Your task to perform on an android device: Open my contact list Image 0: 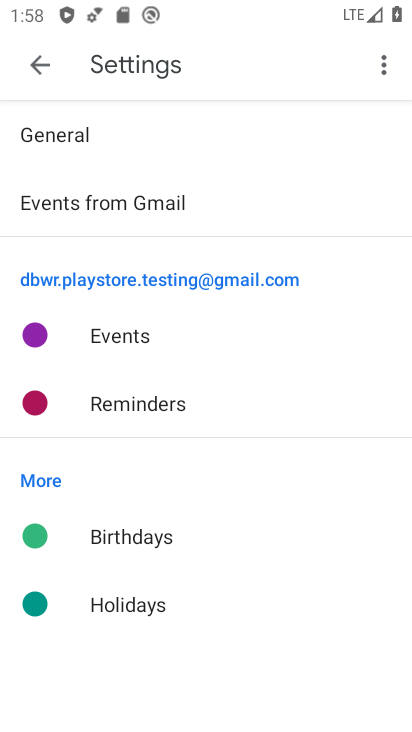
Step 0: press home button
Your task to perform on an android device: Open my contact list Image 1: 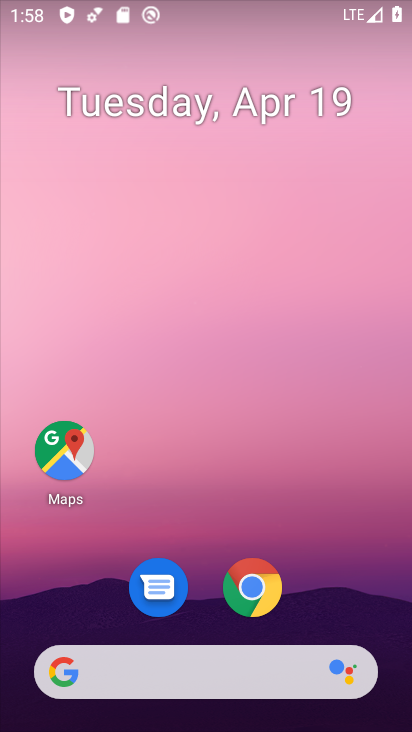
Step 1: drag from (296, 559) to (114, 113)
Your task to perform on an android device: Open my contact list Image 2: 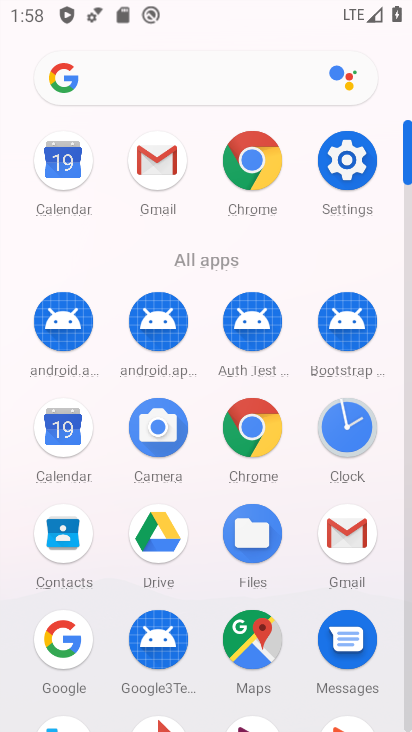
Step 2: click (54, 540)
Your task to perform on an android device: Open my contact list Image 3: 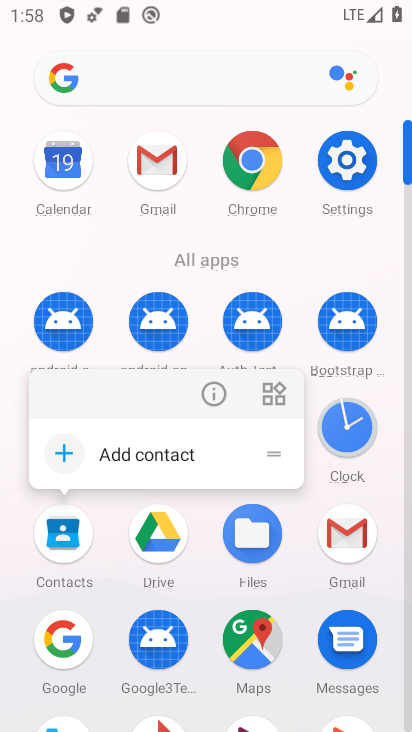
Step 3: click (63, 533)
Your task to perform on an android device: Open my contact list Image 4: 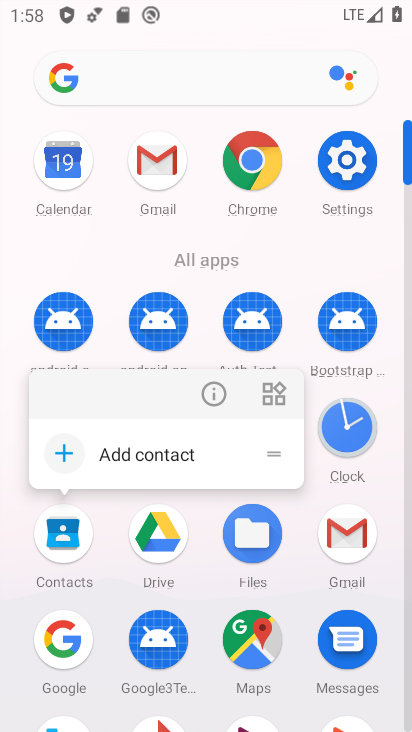
Step 4: click (55, 538)
Your task to perform on an android device: Open my contact list Image 5: 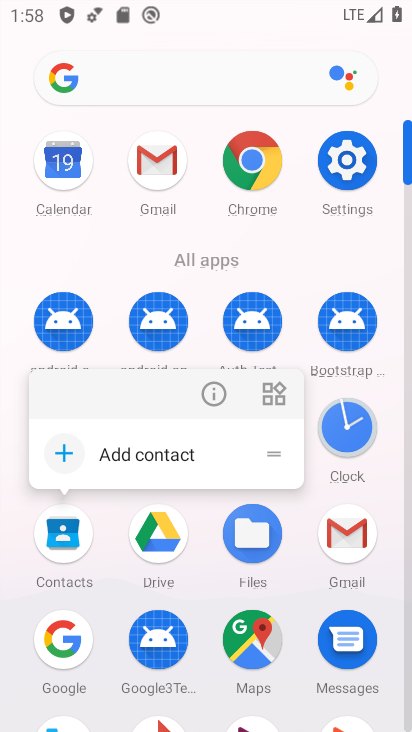
Step 5: click (65, 527)
Your task to perform on an android device: Open my contact list Image 6: 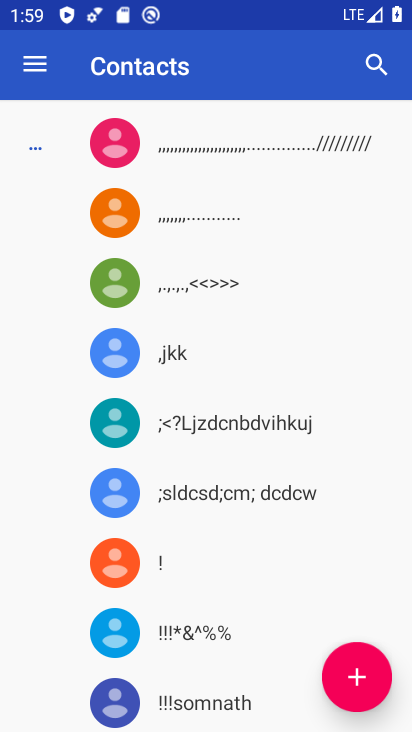
Step 6: drag from (259, 559) to (260, 383)
Your task to perform on an android device: Open my contact list Image 7: 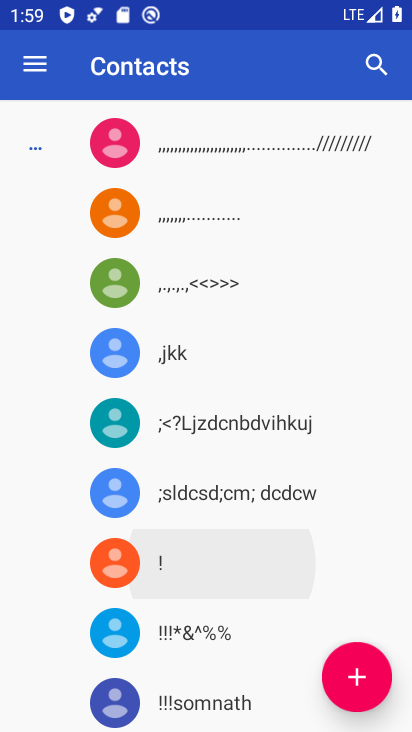
Step 7: drag from (255, 535) to (184, 201)
Your task to perform on an android device: Open my contact list Image 8: 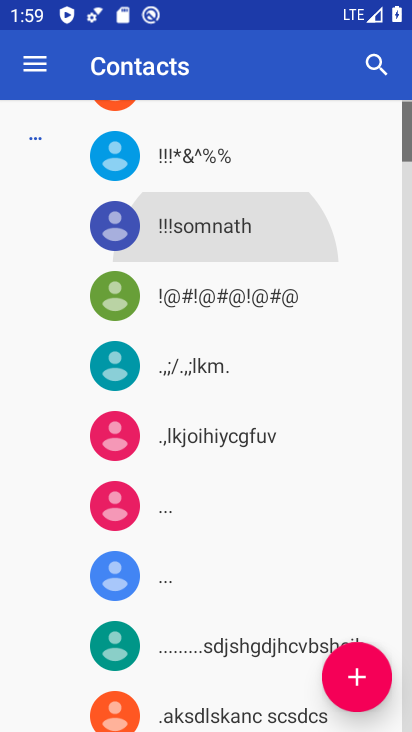
Step 8: drag from (187, 539) to (204, 267)
Your task to perform on an android device: Open my contact list Image 9: 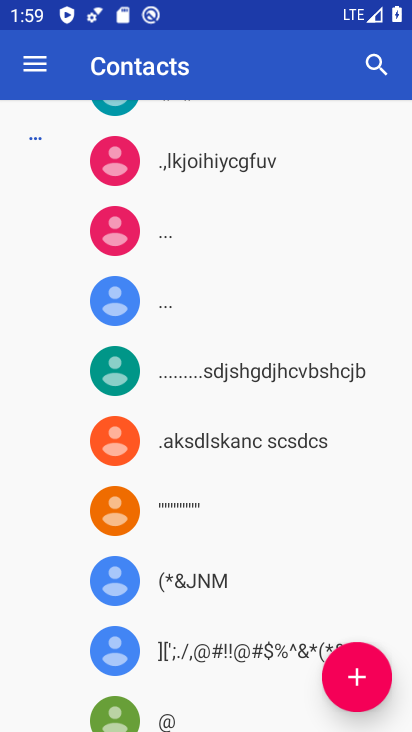
Step 9: click (181, 141)
Your task to perform on an android device: Open my contact list Image 10: 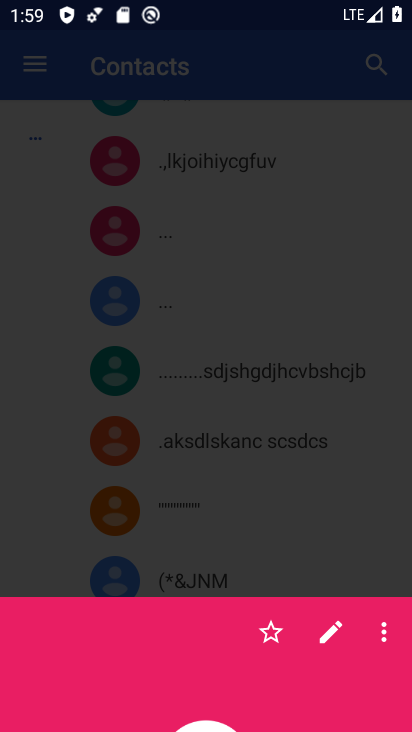
Step 10: drag from (216, 437) to (216, 261)
Your task to perform on an android device: Open my contact list Image 11: 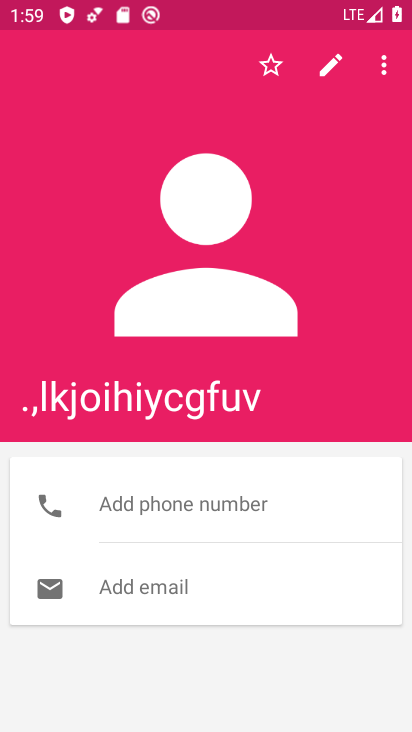
Step 11: drag from (250, 404) to (194, 85)
Your task to perform on an android device: Open my contact list Image 12: 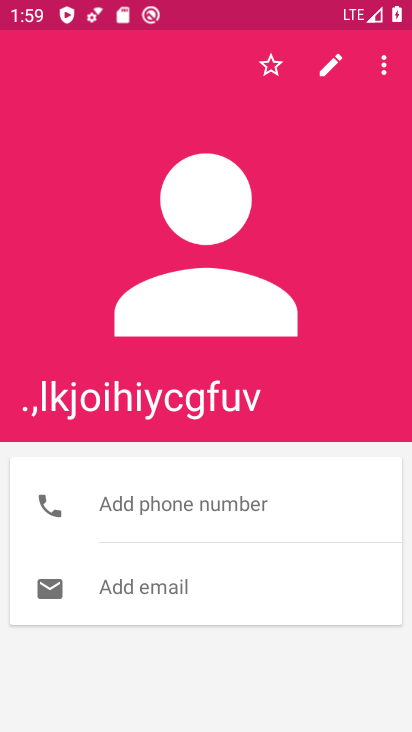
Step 12: click (199, 222)
Your task to perform on an android device: Open my contact list Image 13: 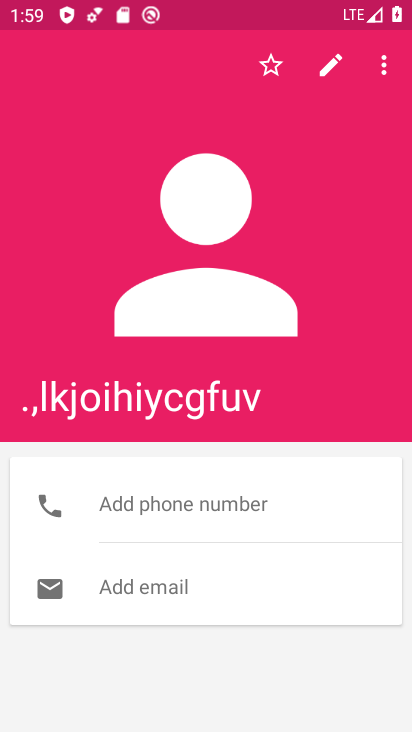
Step 13: task complete